Your task to perform on an android device: check out phone information Image 0: 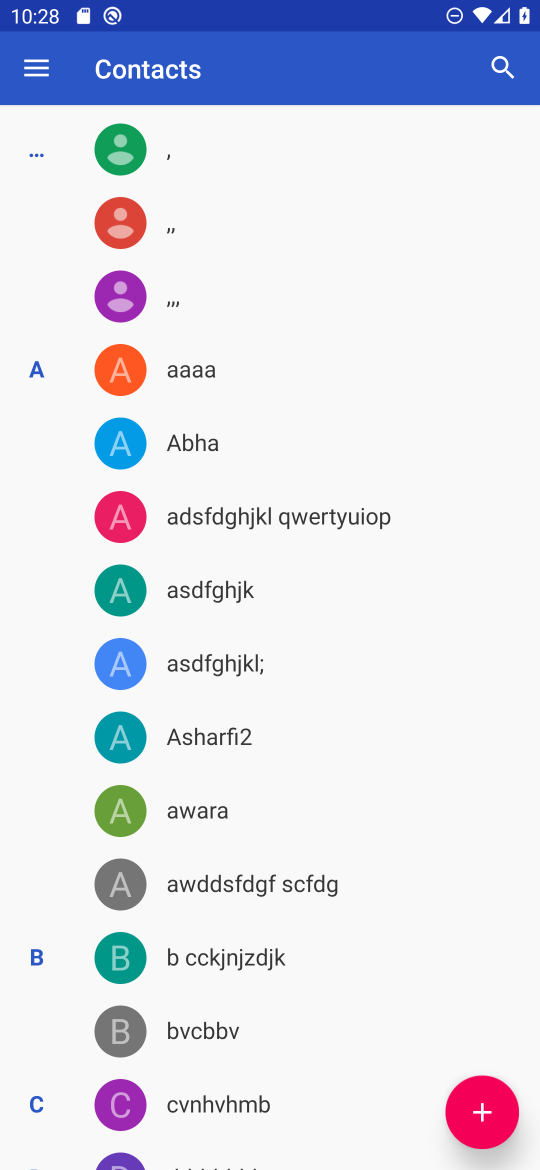
Step 0: task complete